Your task to perform on an android device: See recent photos Image 0: 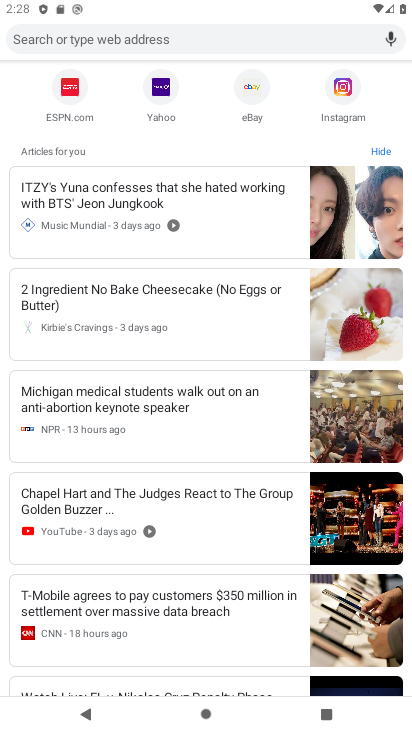
Step 0: drag from (142, 235) to (183, 611)
Your task to perform on an android device: See recent photos Image 1: 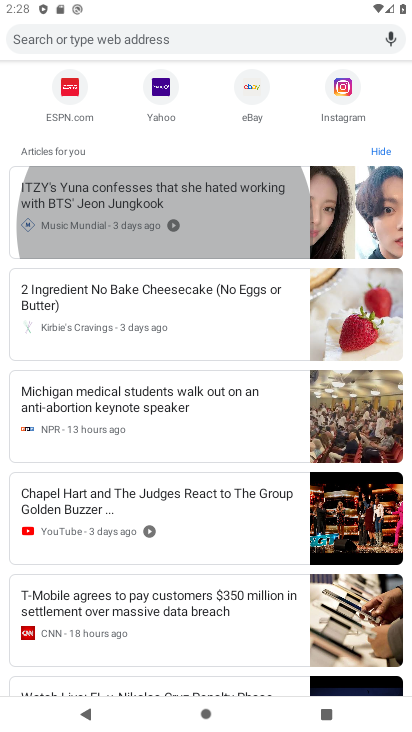
Step 1: drag from (141, 202) to (190, 497)
Your task to perform on an android device: See recent photos Image 2: 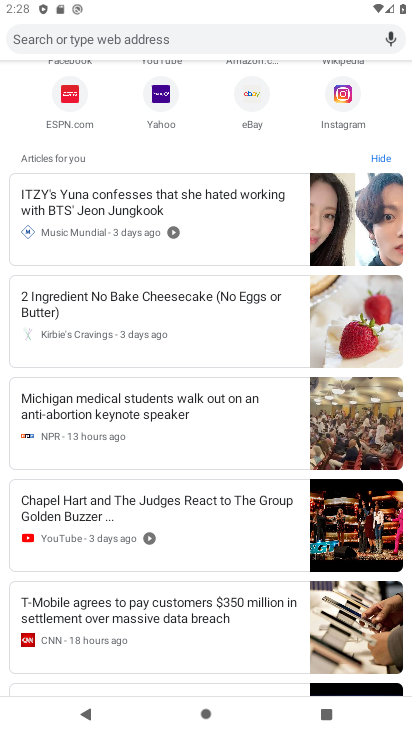
Step 2: drag from (203, 301) to (229, 469)
Your task to perform on an android device: See recent photos Image 3: 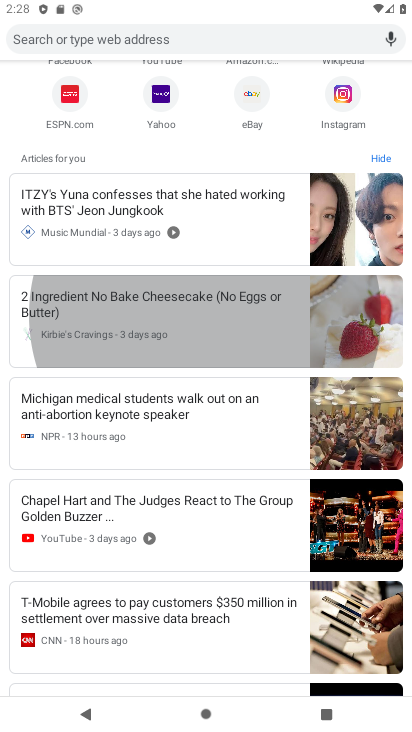
Step 3: drag from (210, 116) to (201, 286)
Your task to perform on an android device: See recent photos Image 4: 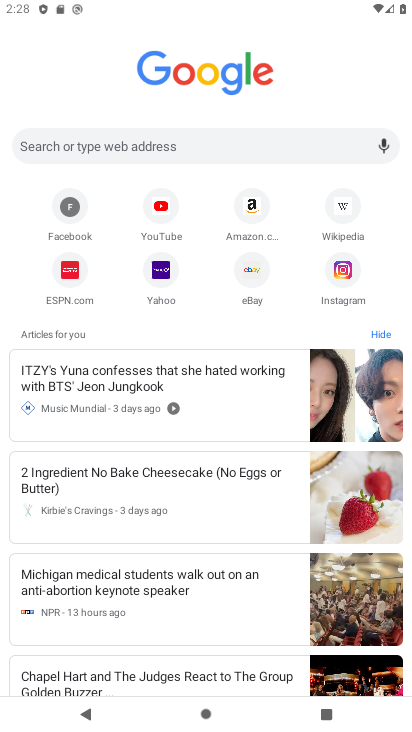
Step 4: drag from (213, 1) to (229, 313)
Your task to perform on an android device: See recent photos Image 5: 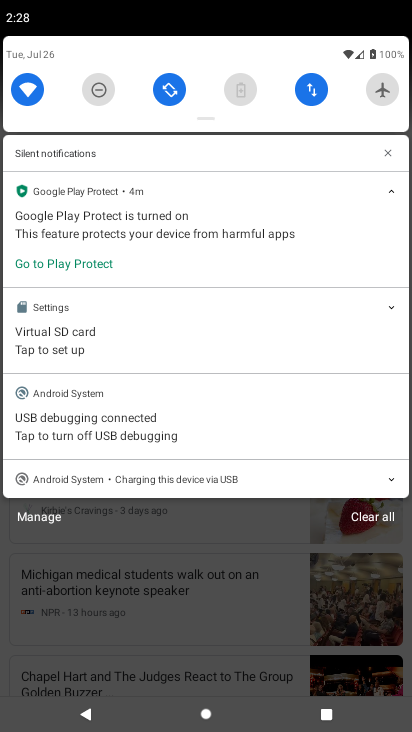
Step 5: click (192, 553)
Your task to perform on an android device: See recent photos Image 6: 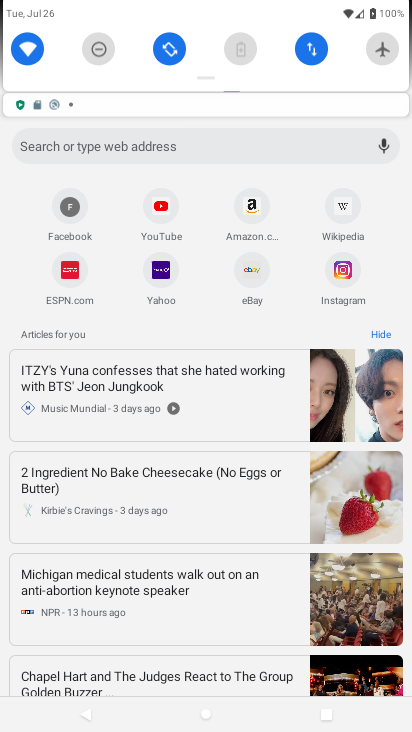
Step 6: press back button
Your task to perform on an android device: See recent photos Image 7: 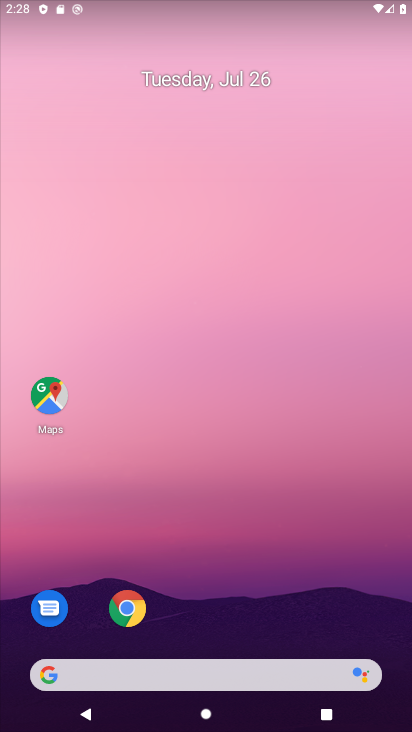
Step 7: press home button
Your task to perform on an android device: See recent photos Image 8: 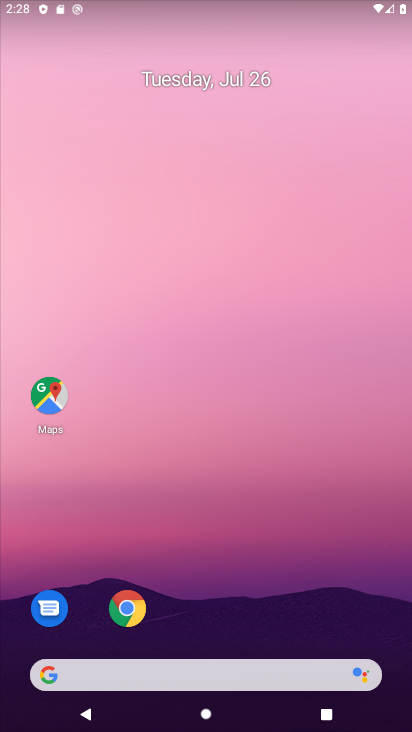
Step 8: drag from (205, 354) to (164, 74)
Your task to perform on an android device: See recent photos Image 9: 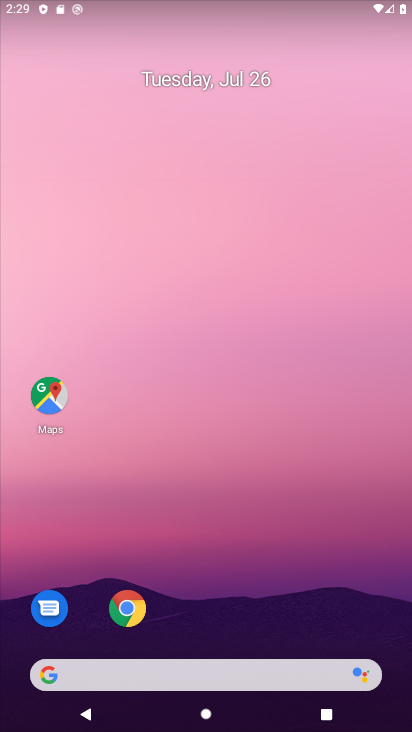
Step 9: drag from (230, 356) to (228, 118)
Your task to perform on an android device: See recent photos Image 10: 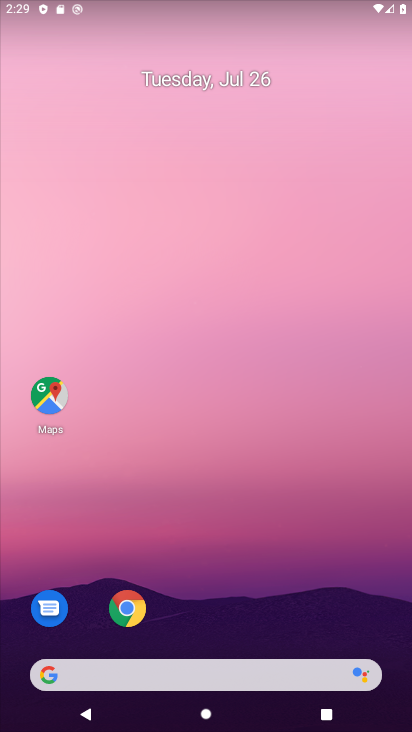
Step 10: drag from (288, 546) to (140, 44)
Your task to perform on an android device: See recent photos Image 11: 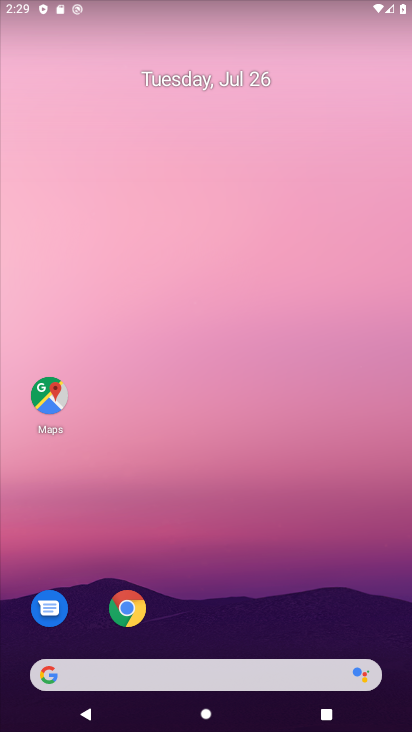
Step 11: drag from (210, 284) to (208, 103)
Your task to perform on an android device: See recent photos Image 12: 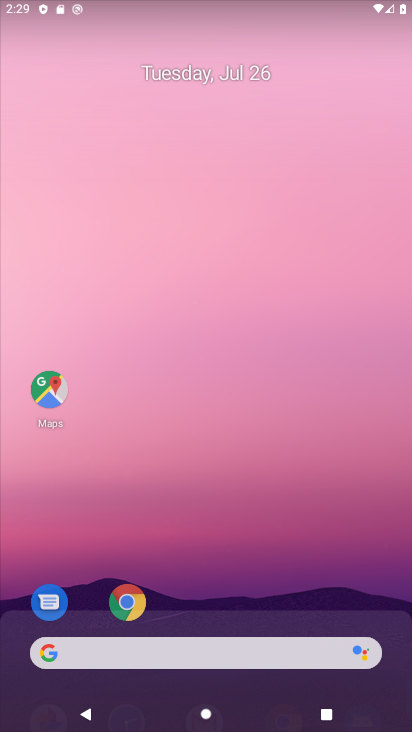
Step 12: drag from (221, 564) to (243, 144)
Your task to perform on an android device: See recent photos Image 13: 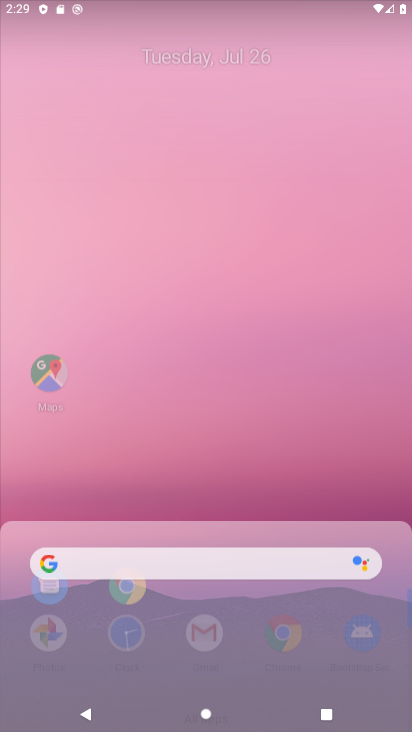
Step 13: drag from (199, 479) to (190, 86)
Your task to perform on an android device: See recent photos Image 14: 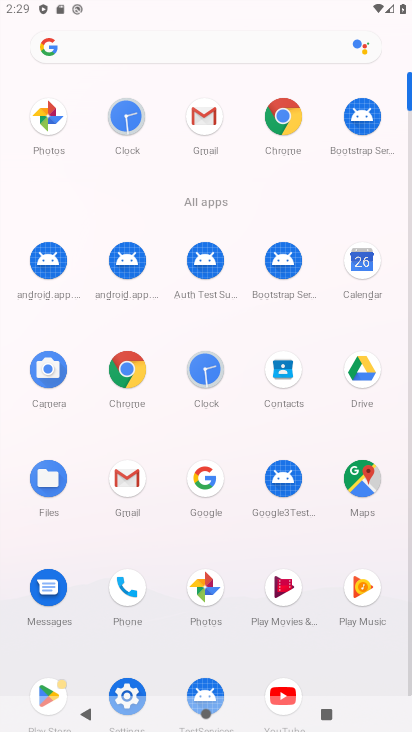
Step 14: drag from (231, 554) to (206, 70)
Your task to perform on an android device: See recent photos Image 15: 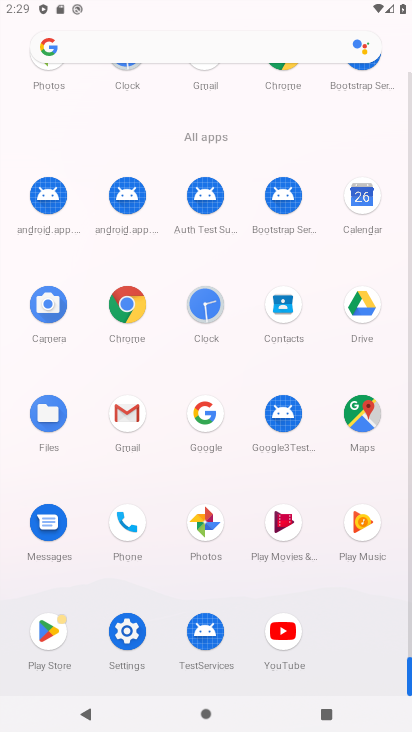
Step 15: click (208, 516)
Your task to perform on an android device: See recent photos Image 16: 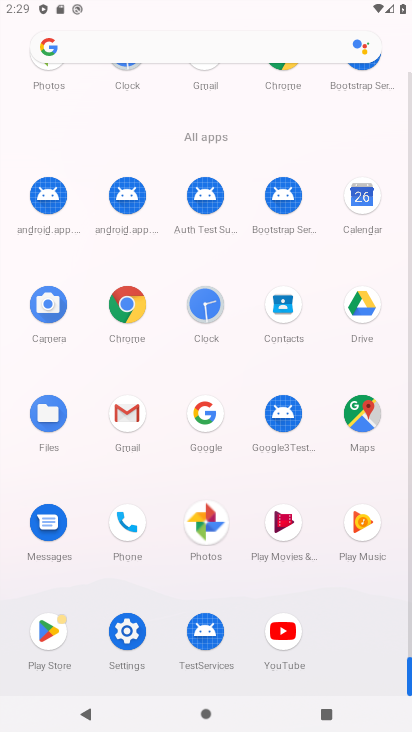
Step 16: click (209, 514)
Your task to perform on an android device: See recent photos Image 17: 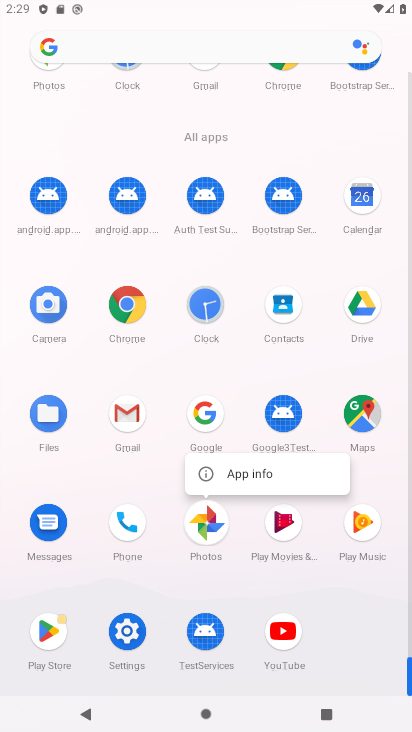
Step 17: click (210, 513)
Your task to perform on an android device: See recent photos Image 18: 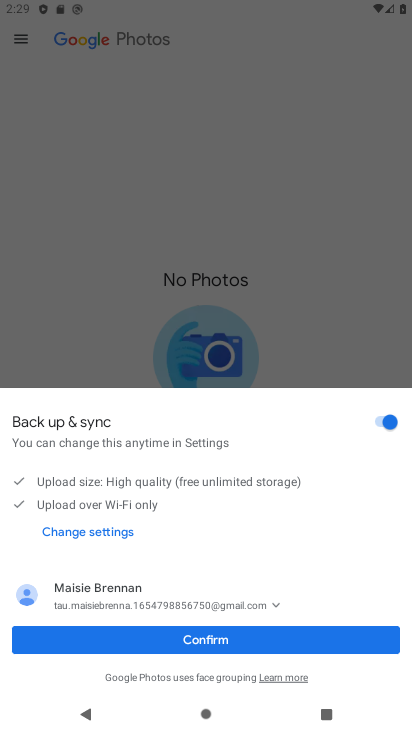
Step 18: click (223, 643)
Your task to perform on an android device: See recent photos Image 19: 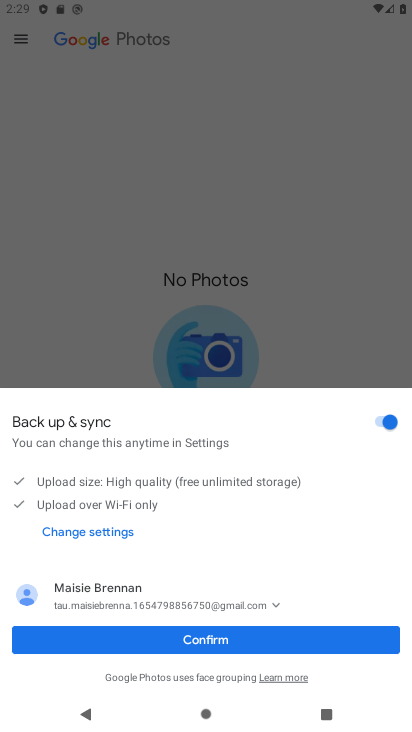
Step 19: click (223, 643)
Your task to perform on an android device: See recent photos Image 20: 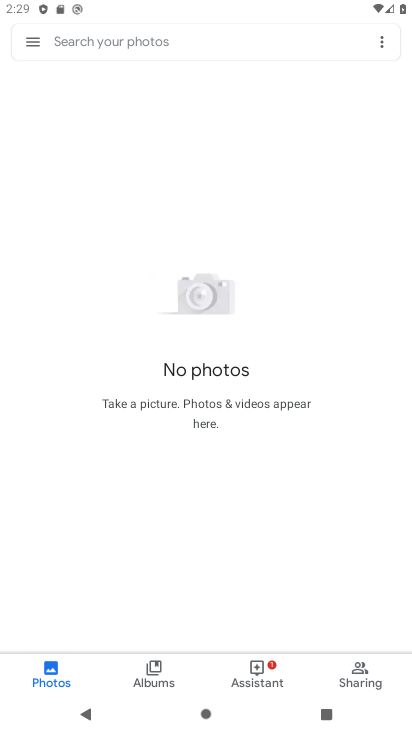
Step 20: task complete